Your task to perform on an android device: Open Google Image 0: 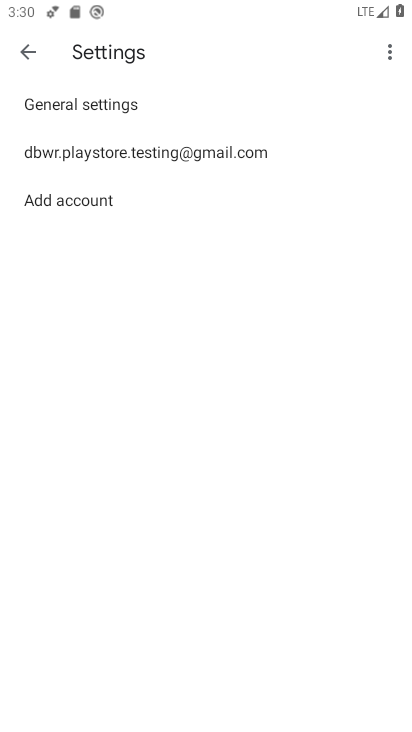
Step 0: press home button
Your task to perform on an android device: Open Google Image 1: 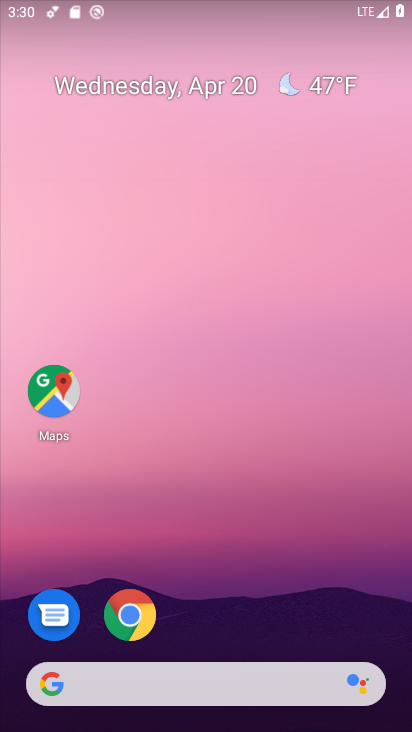
Step 1: drag from (235, 634) to (194, 178)
Your task to perform on an android device: Open Google Image 2: 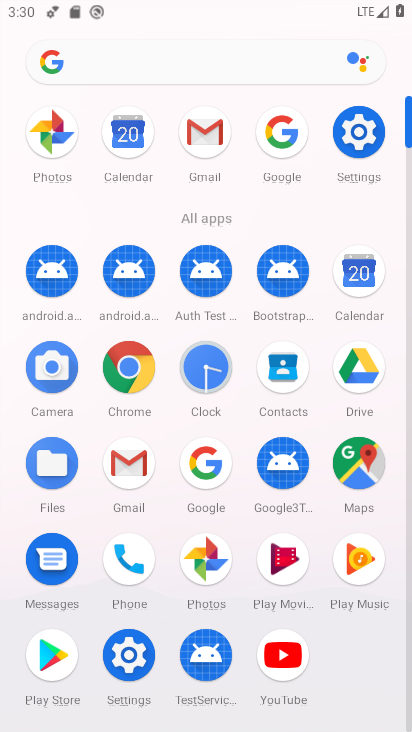
Step 2: click (278, 139)
Your task to perform on an android device: Open Google Image 3: 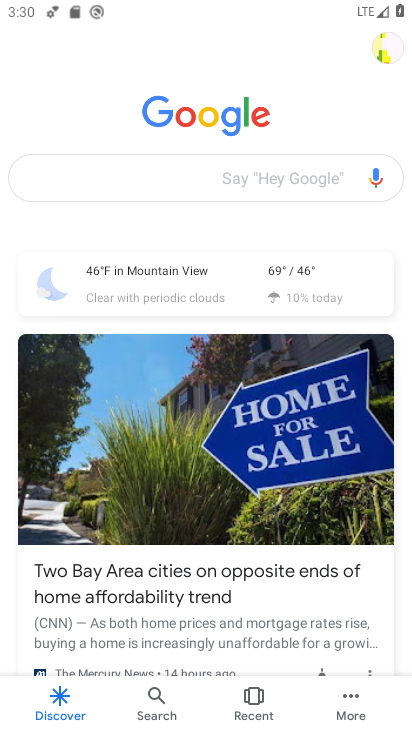
Step 3: task complete